Your task to perform on an android device: Go to network settings Image 0: 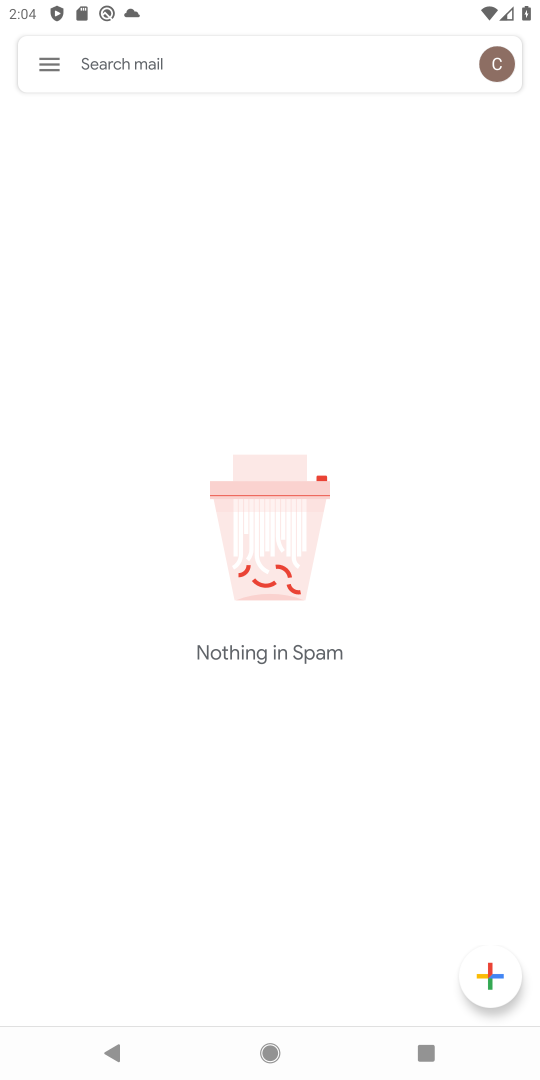
Step 0: press home button
Your task to perform on an android device: Go to network settings Image 1: 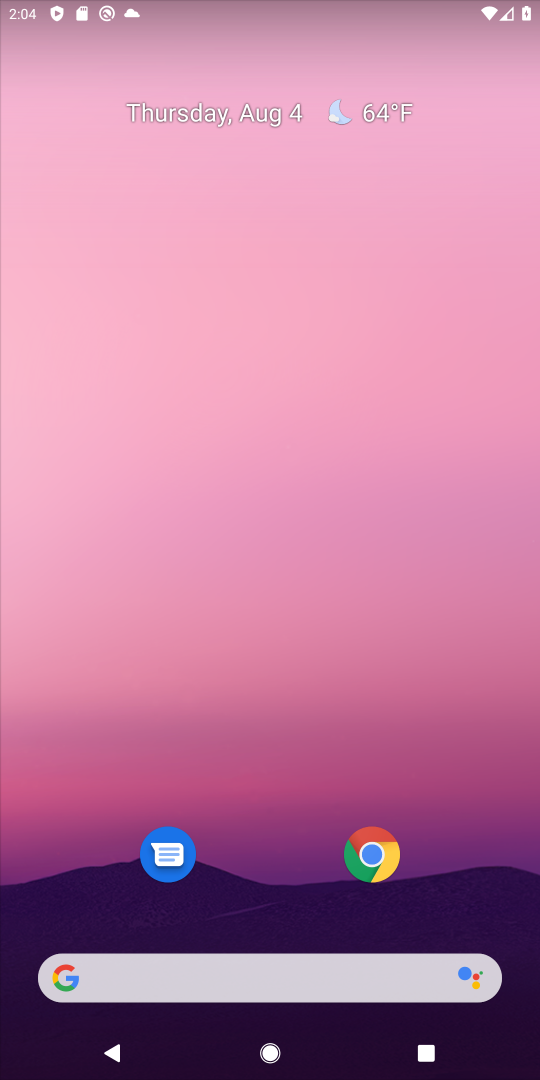
Step 1: drag from (301, 784) to (416, 236)
Your task to perform on an android device: Go to network settings Image 2: 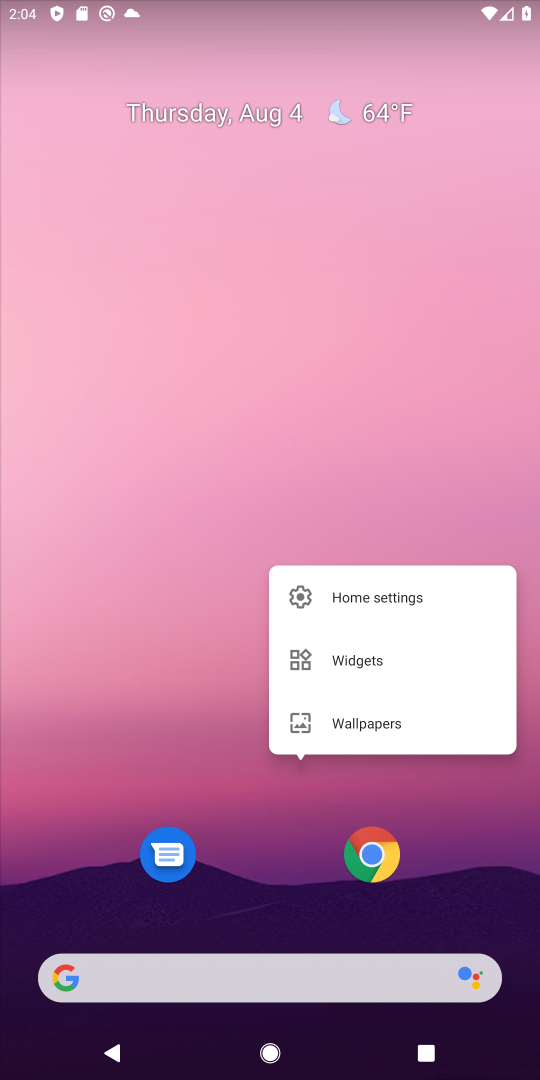
Step 2: click (225, 460)
Your task to perform on an android device: Go to network settings Image 3: 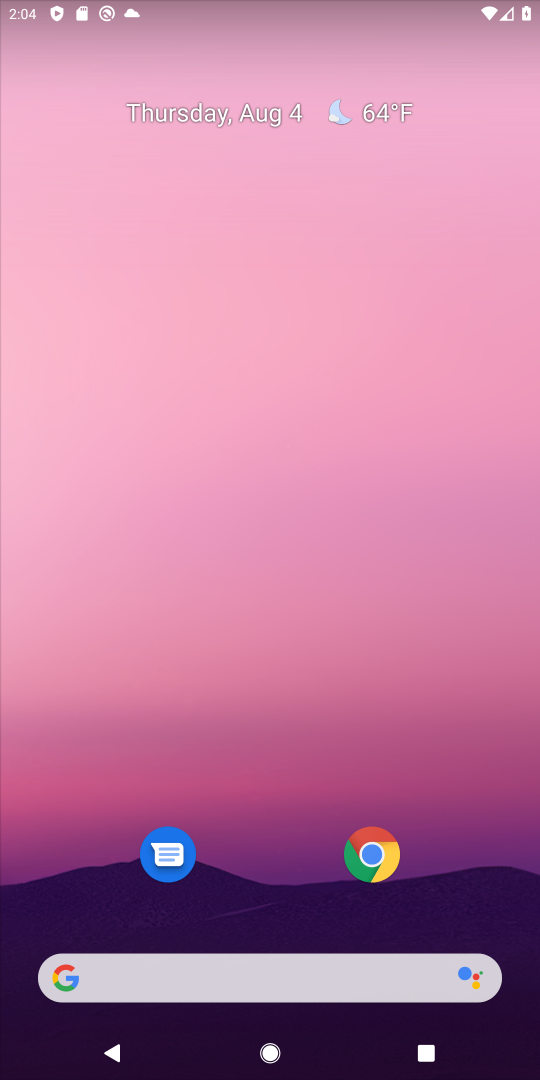
Step 3: drag from (234, 780) to (317, 414)
Your task to perform on an android device: Go to network settings Image 4: 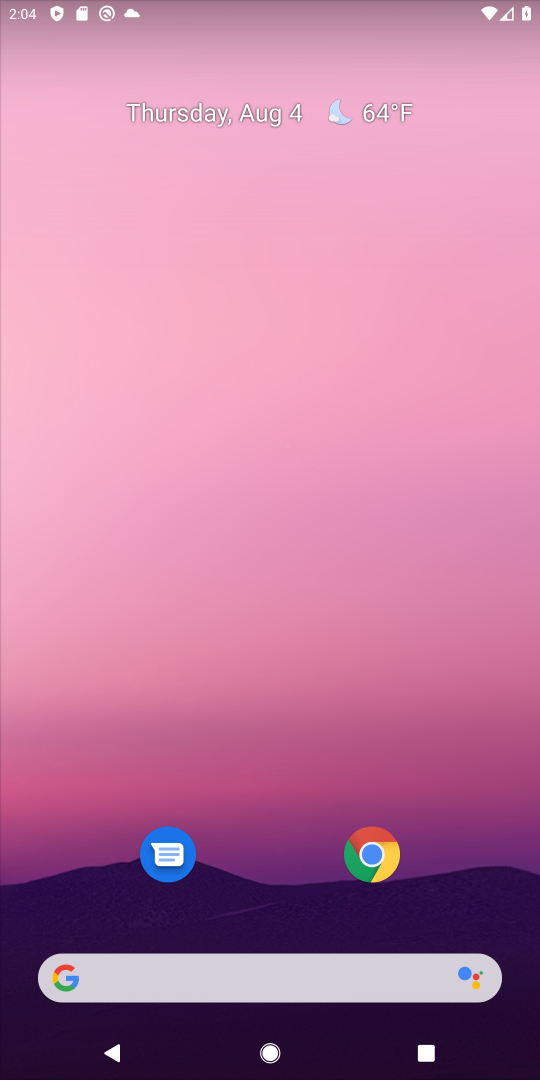
Step 4: drag from (292, 700) to (298, 317)
Your task to perform on an android device: Go to network settings Image 5: 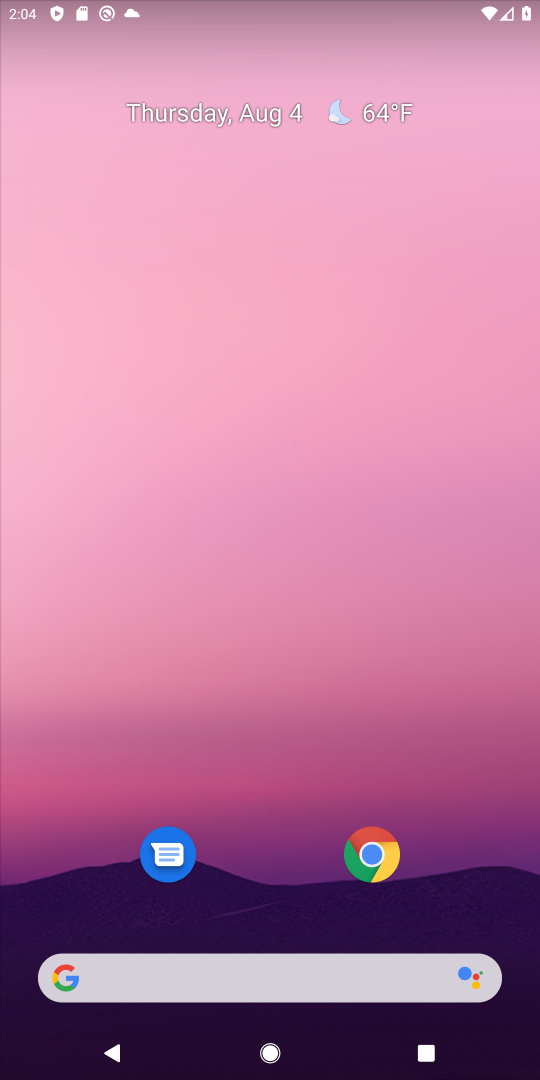
Step 5: drag from (271, 737) to (319, 318)
Your task to perform on an android device: Go to network settings Image 6: 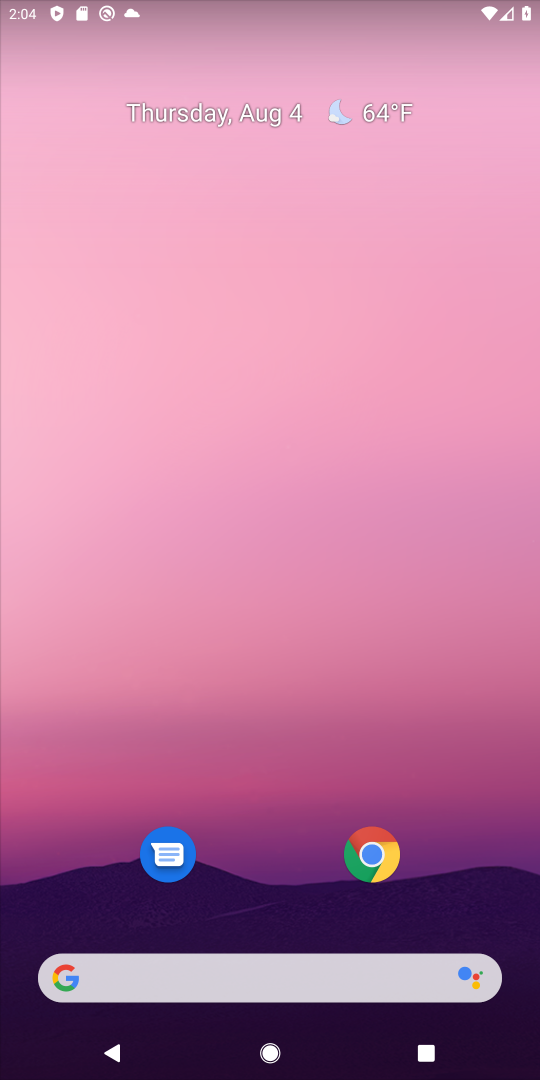
Step 6: drag from (307, 774) to (343, 161)
Your task to perform on an android device: Go to network settings Image 7: 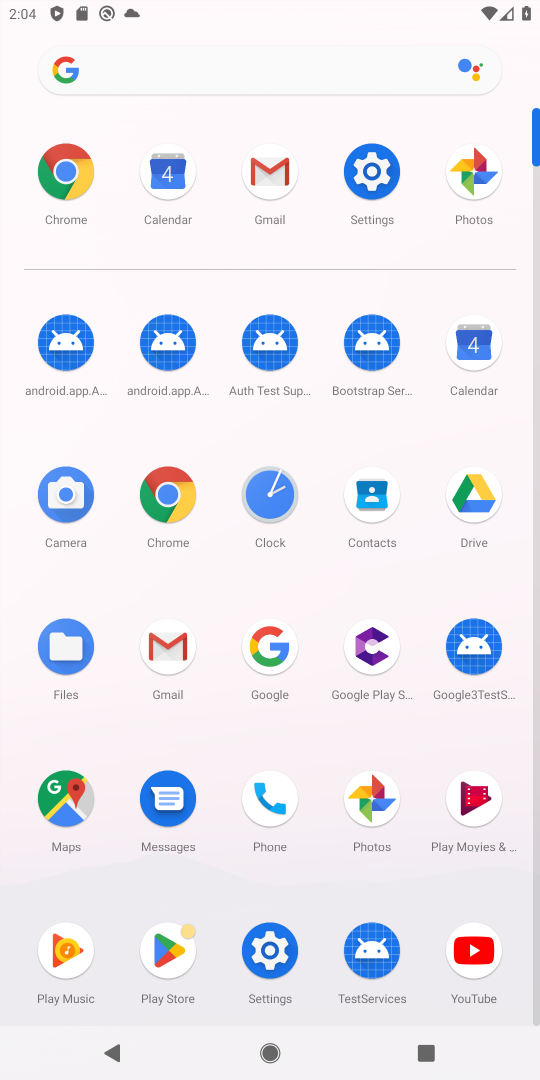
Step 7: click (264, 950)
Your task to perform on an android device: Go to network settings Image 8: 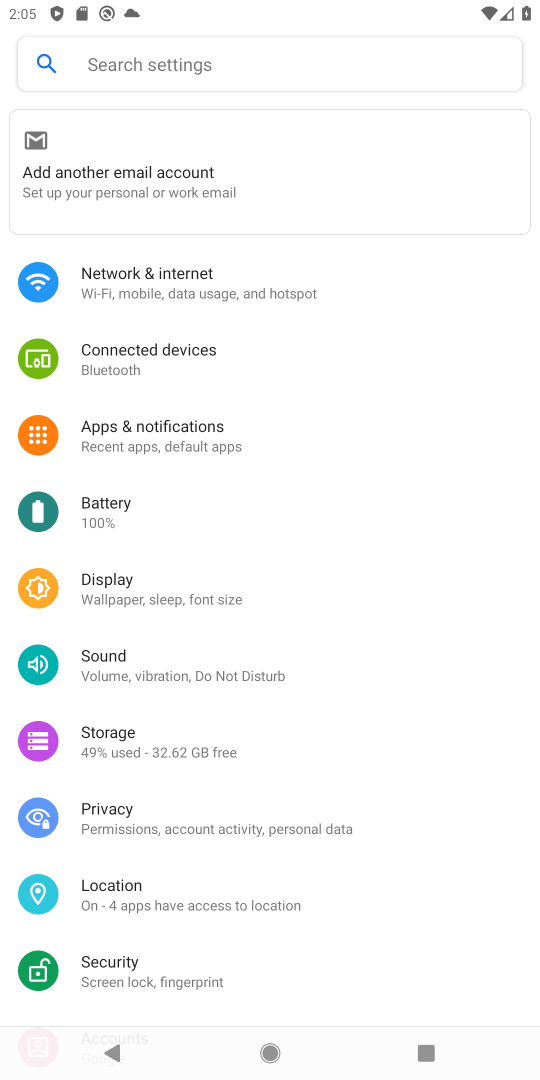
Step 8: click (141, 268)
Your task to perform on an android device: Go to network settings Image 9: 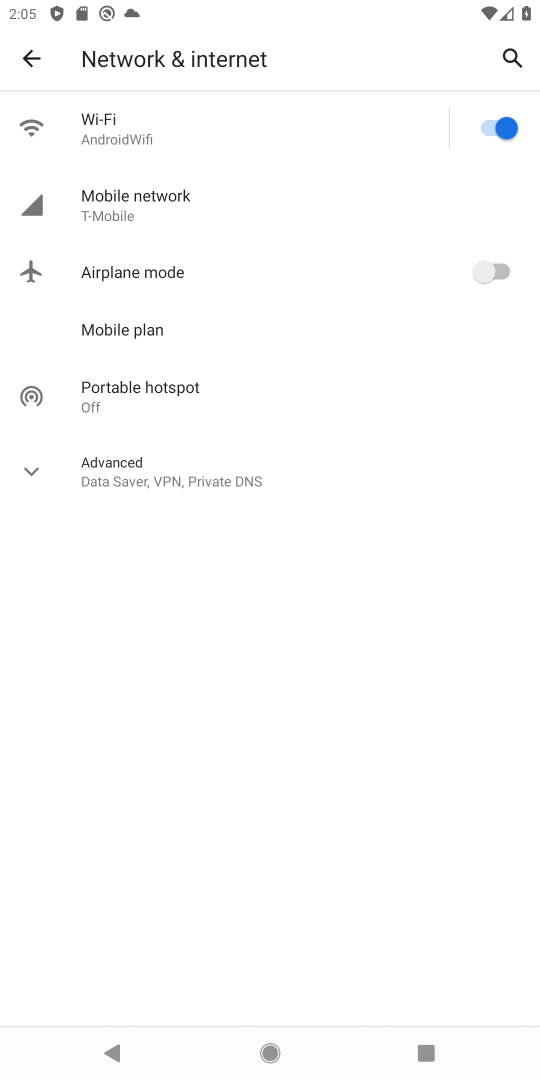
Step 9: task complete